Your task to perform on an android device: open device folders in google photos Image 0: 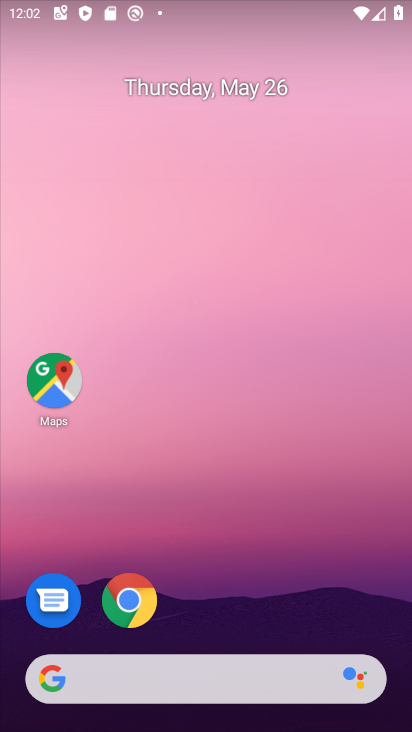
Step 0: drag from (306, 569) to (264, 120)
Your task to perform on an android device: open device folders in google photos Image 1: 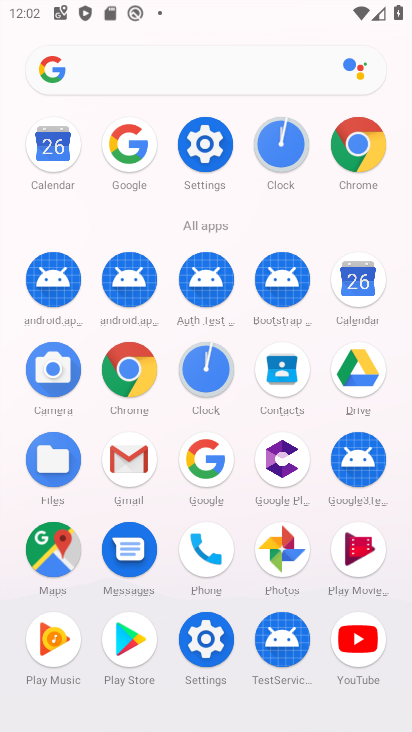
Step 1: click (285, 552)
Your task to perform on an android device: open device folders in google photos Image 2: 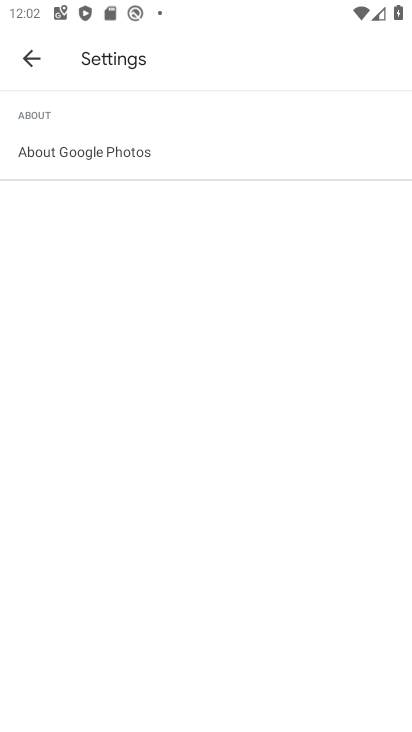
Step 2: click (32, 48)
Your task to perform on an android device: open device folders in google photos Image 3: 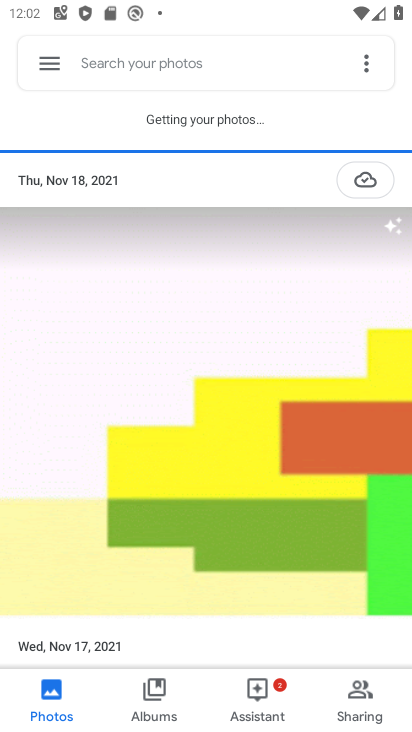
Step 3: click (34, 49)
Your task to perform on an android device: open device folders in google photos Image 4: 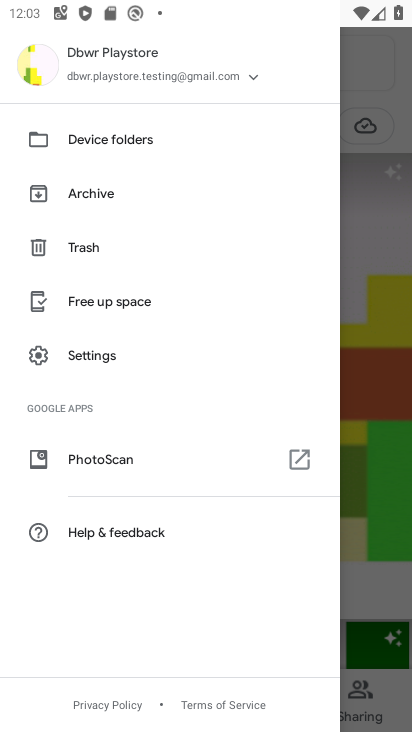
Step 4: click (119, 133)
Your task to perform on an android device: open device folders in google photos Image 5: 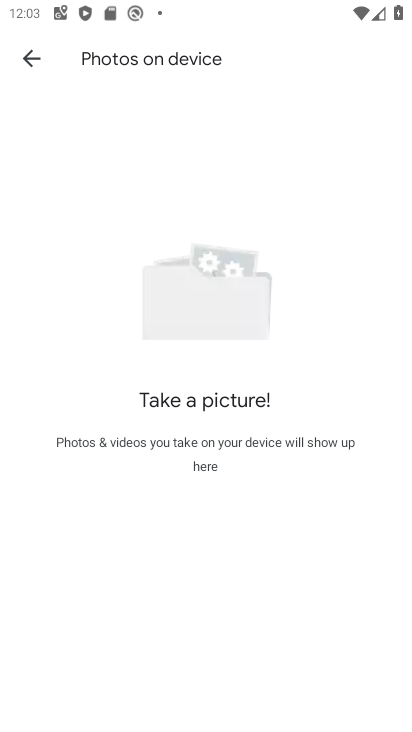
Step 5: task complete